Your task to perform on an android device: Open location settings Image 0: 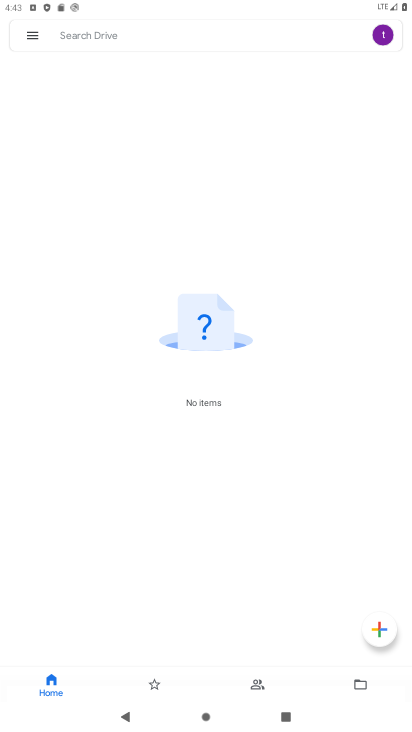
Step 0: press home button
Your task to perform on an android device: Open location settings Image 1: 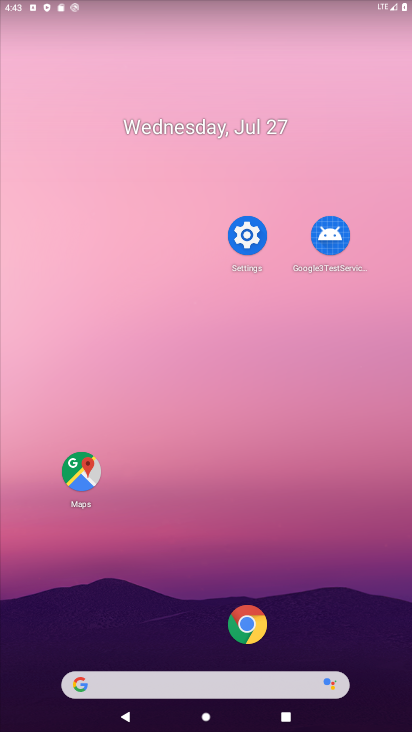
Step 1: click (247, 234)
Your task to perform on an android device: Open location settings Image 2: 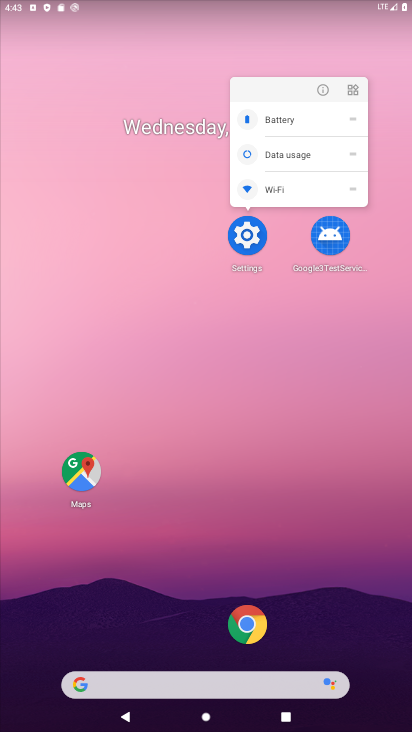
Step 2: click (247, 234)
Your task to perform on an android device: Open location settings Image 3: 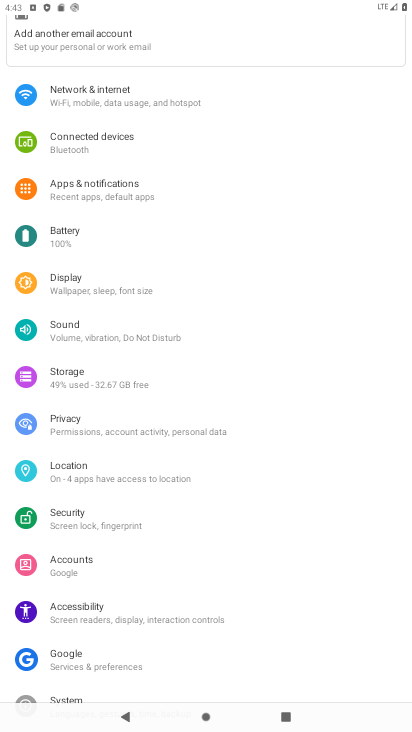
Step 3: click (95, 473)
Your task to perform on an android device: Open location settings Image 4: 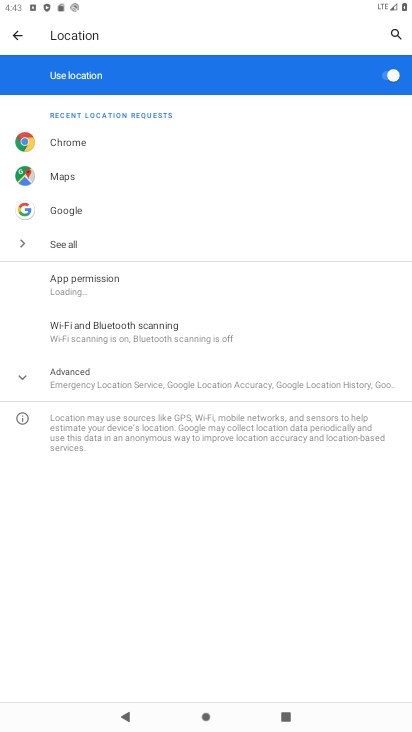
Step 4: task complete